Your task to perform on an android device: Open the web browser Image 0: 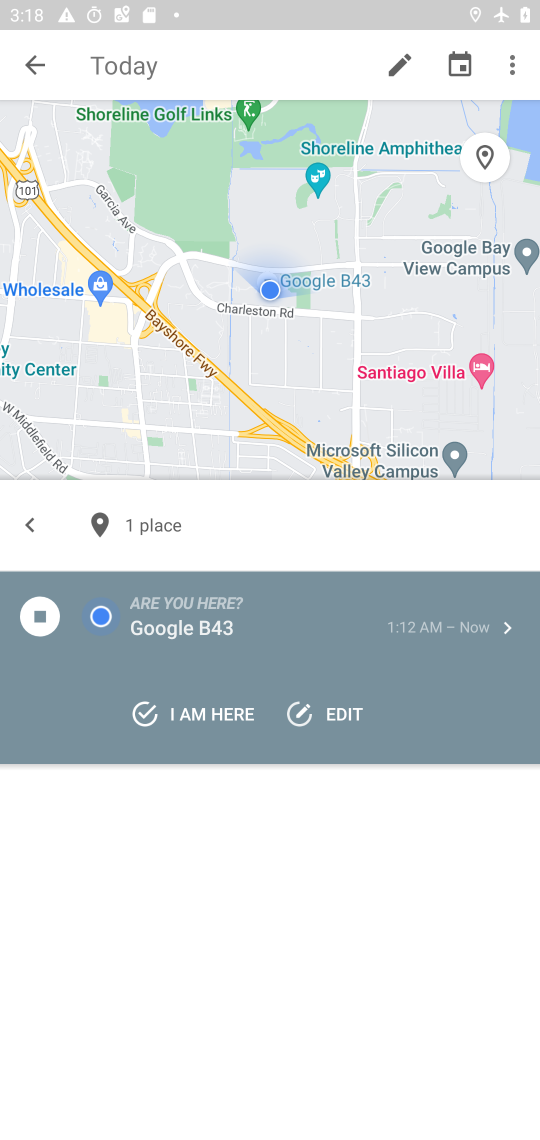
Step 0: press home button
Your task to perform on an android device: Open the web browser Image 1: 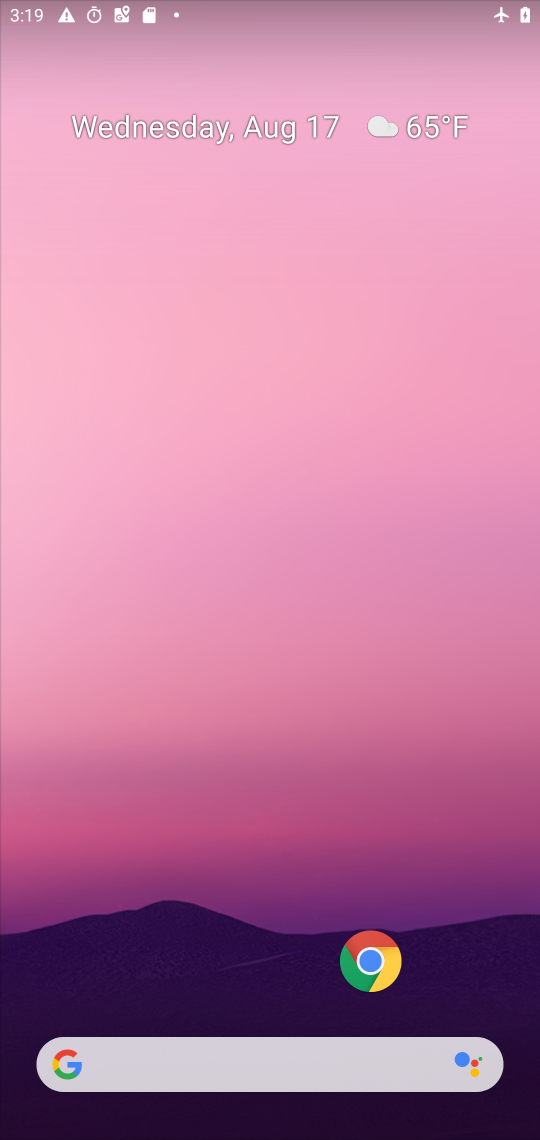
Step 1: drag from (233, 1028) to (228, 360)
Your task to perform on an android device: Open the web browser Image 2: 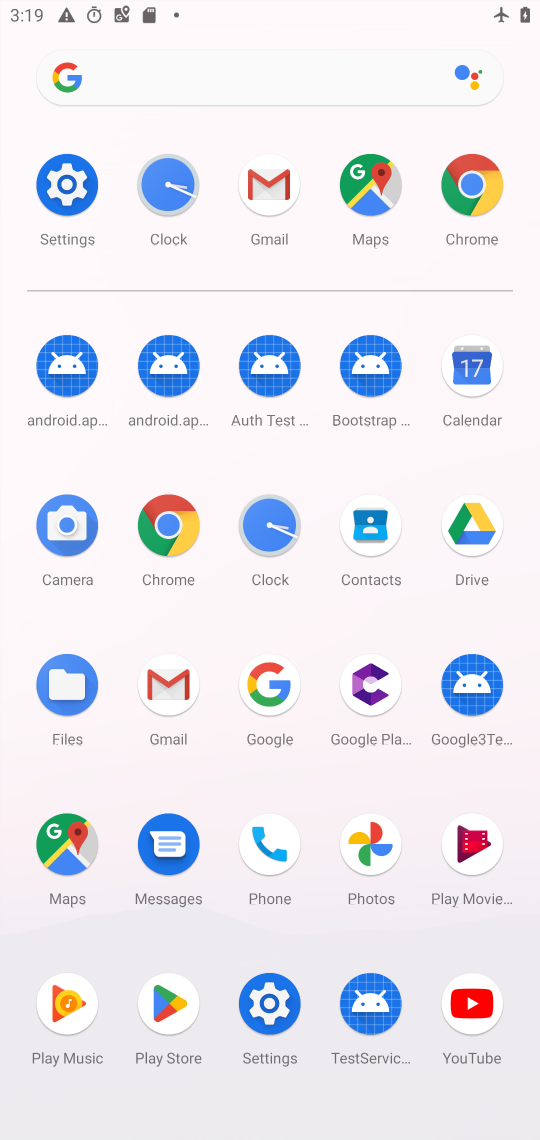
Step 2: click (450, 184)
Your task to perform on an android device: Open the web browser Image 3: 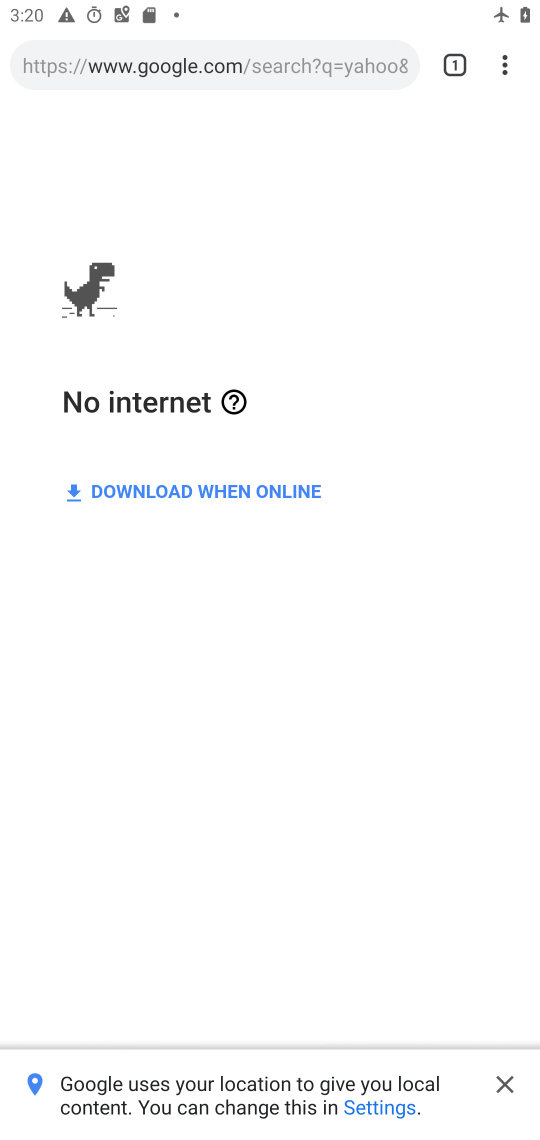
Step 3: task complete